Your task to perform on an android device: turn off data saver in the chrome app Image 0: 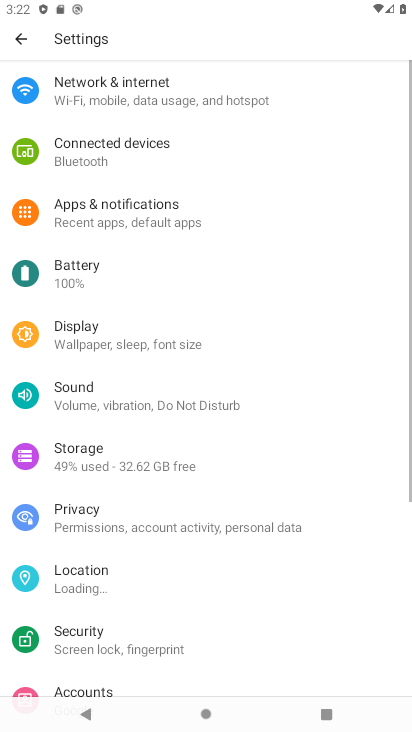
Step 0: press home button
Your task to perform on an android device: turn off data saver in the chrome app Image 1: 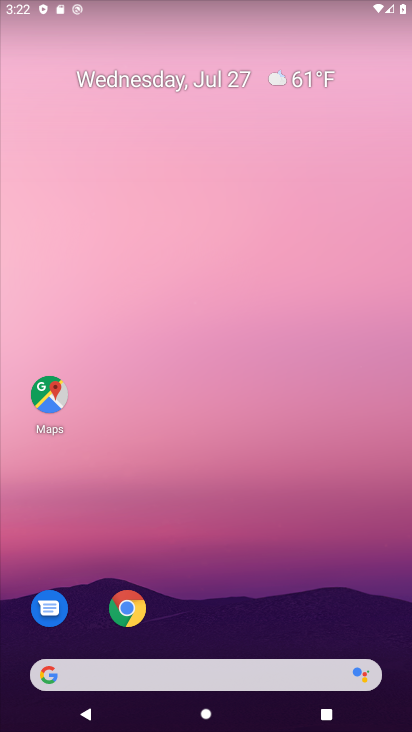
Step 1: click (126, 605)
Your task to perform on an android device: turn off data saver in the chrome app Image 2: 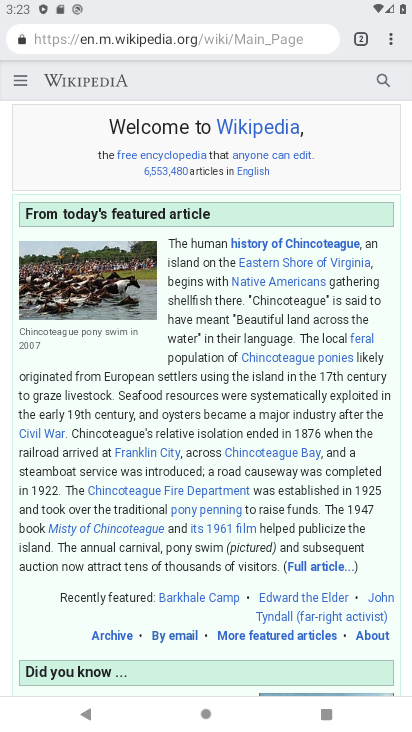
Step 2: click (392, 42)
Your task to perform on an android device: turn off data saver in the chrome app Image 3: 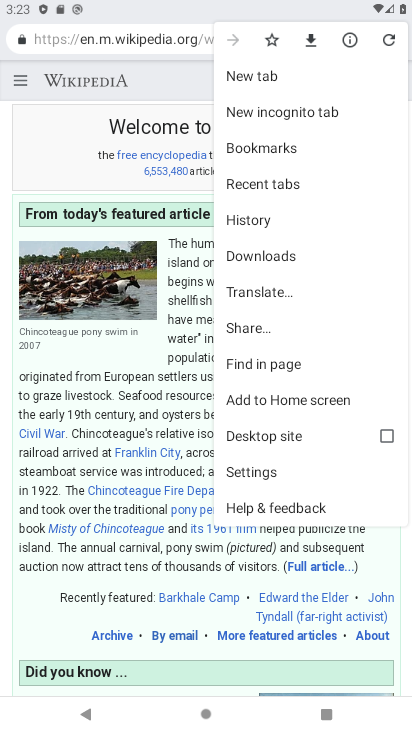
Step 3: click (233, 474)
Your task to perform on an android device: turn off data saver in the chrome app Image 4: 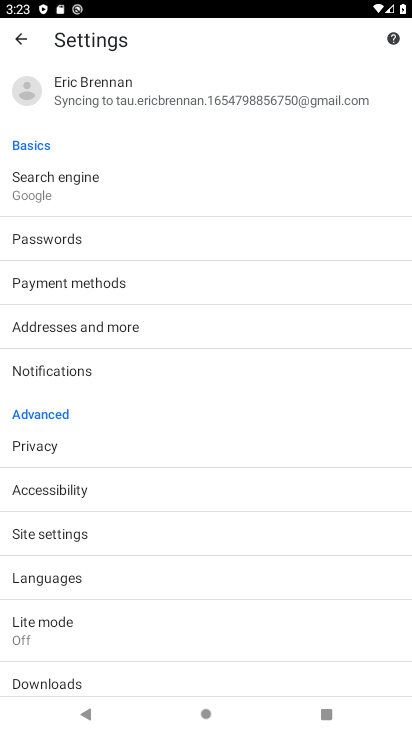
Step 4: click (51, 626)
Your task to perform on an android device: turn off data saver in the chrome app Image 5: 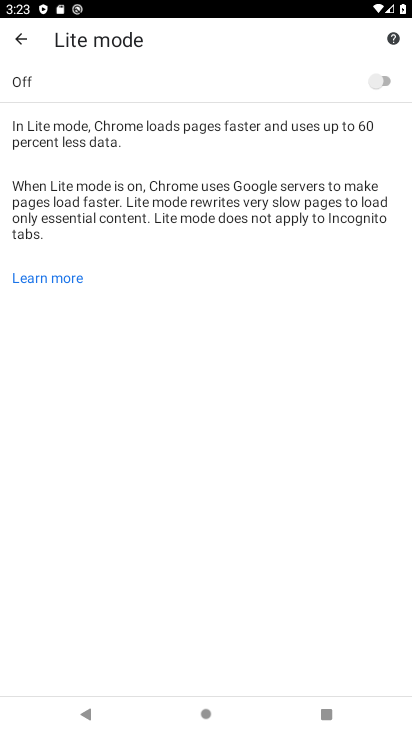
Step 5: task complete